Your task to perform on an android device: Check the weather Image 0: 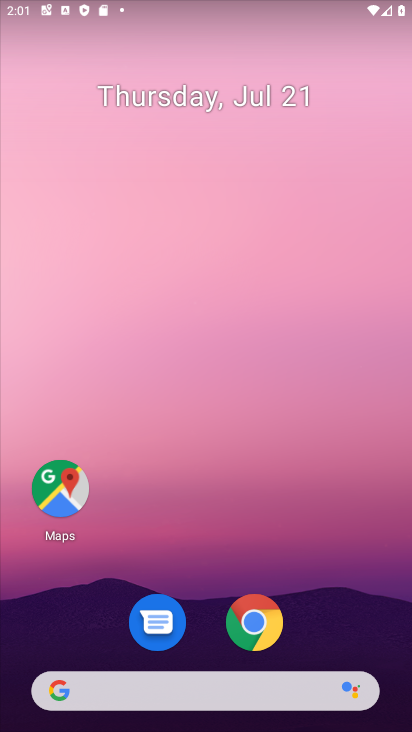
Step 0: click (191, 691)
Your task to perform on an android device: Check the weather Image 1: 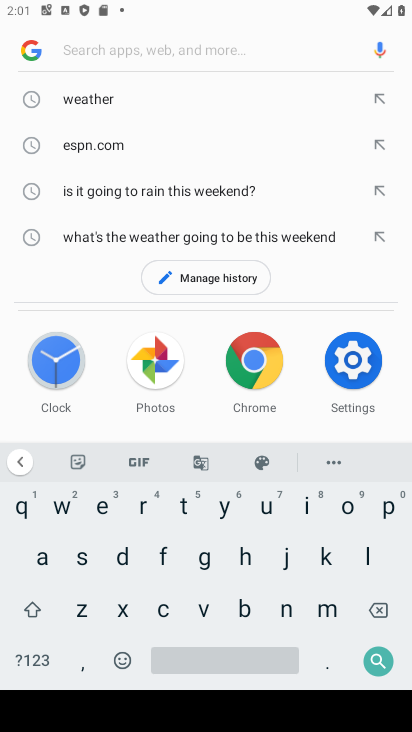
Step 1: click (116, 97)
Your task to perform on an android device: Check the weather Image 2: 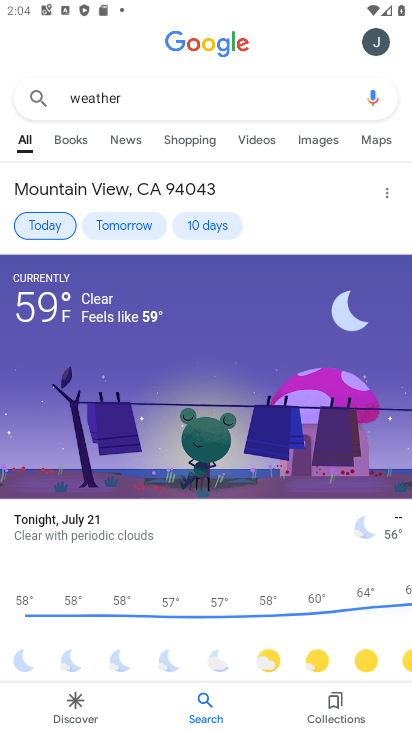
Step 2: task complete